Your task to perform on an android device: Clear the shopping cart on ebay. Image 0: 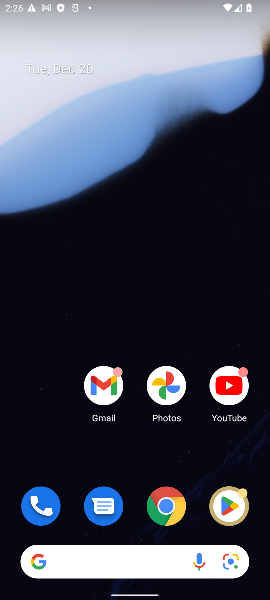
Step 0: click (167, 508)
Your task to perform on an android device: Clear the shopping cart on ebay. Image 1: 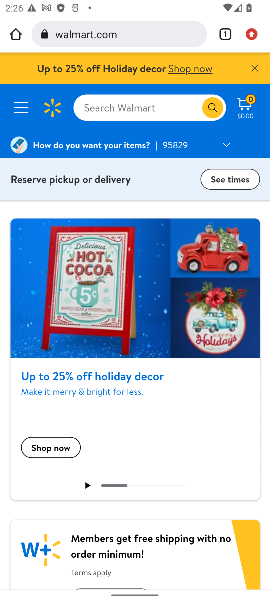
Step 1: click (110, 32)
Your task to perform on an android device: Clear the shopping cart on ebay. Image 2: 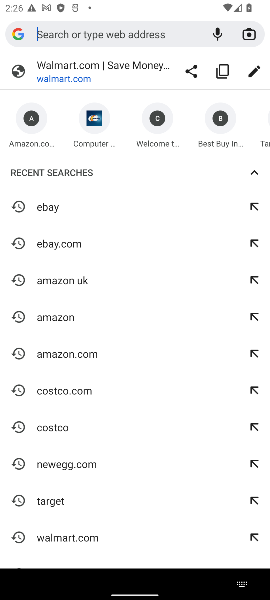
Step 2: type "ebay"
Your task to perform on an android device: Clear the shopping cart on ebay. Image 3: 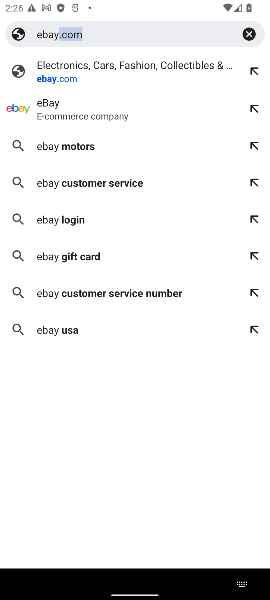
Step 3: click (112, 77)
Your task to perform on an android device: Clear the shopping cart on ebay. Image 4: 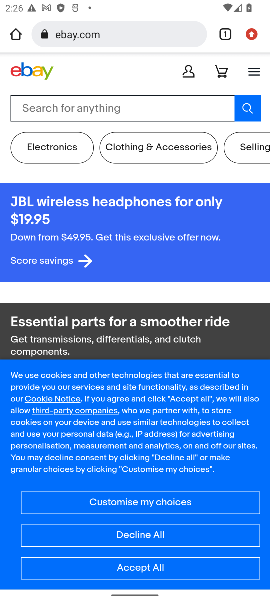
Step 4: click (121, 567)
Your task to perform on an android device: Clear the shopping cart on ebay. Image 5: 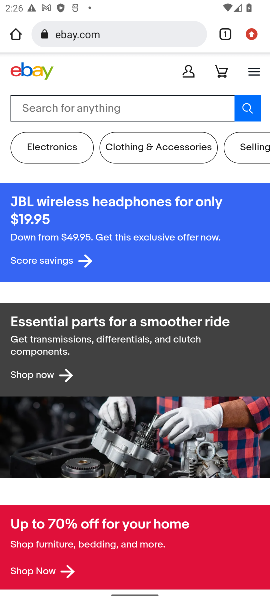
Step 5: click (217, 72)
Your task to perform on an android device: Clear the shopping cart on ebay. Image 6: 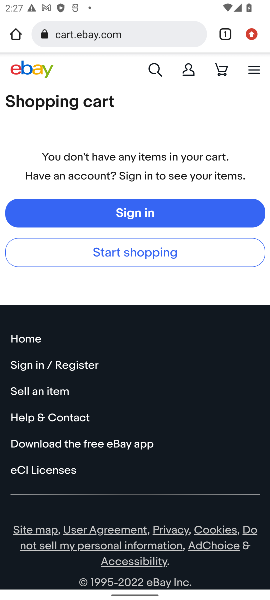
Step 6: task complete